Your task to perform on an android device: Search for pizza restaurants on Maps Image 0: 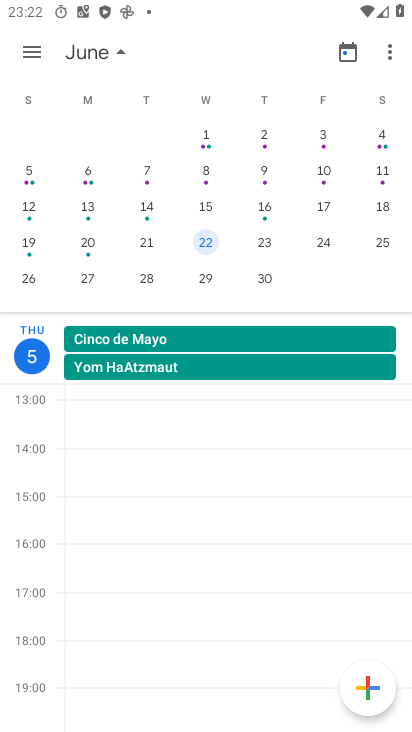
Step 0: press home button
Your task to perform on an android device: Search for pizza restaurants on Maps Image 1: 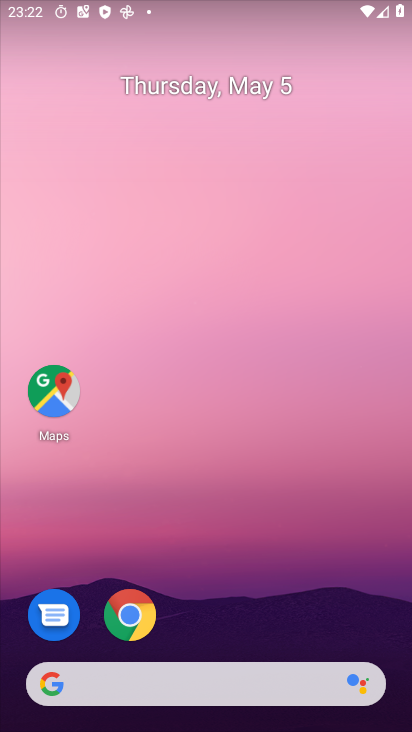
Step 1: click (49, 393)
Your task to perform on an android device: Search for pizza restaurants on Maps Image 2: 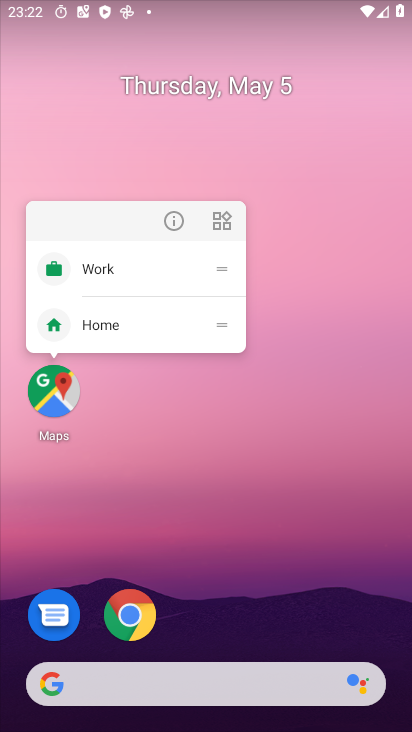
Step 2: click (60, 398)
Your task to perform on an android device: Search for pizza restaurants on Maps Image 3: 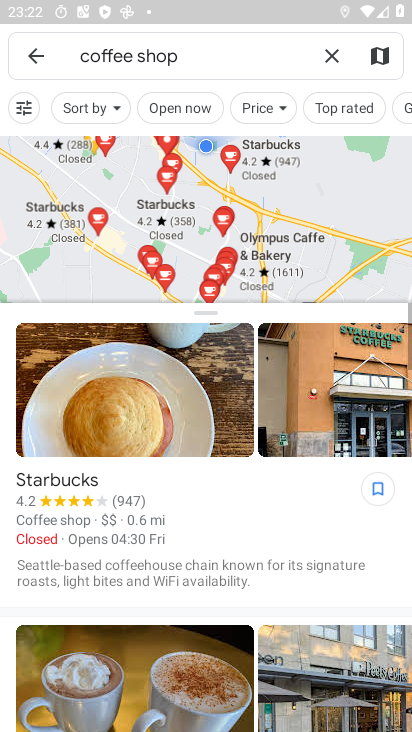
Step 3: click (260, 63)
Your task to perform on an android device: Search for pizza restaurants on Maps Image 4: 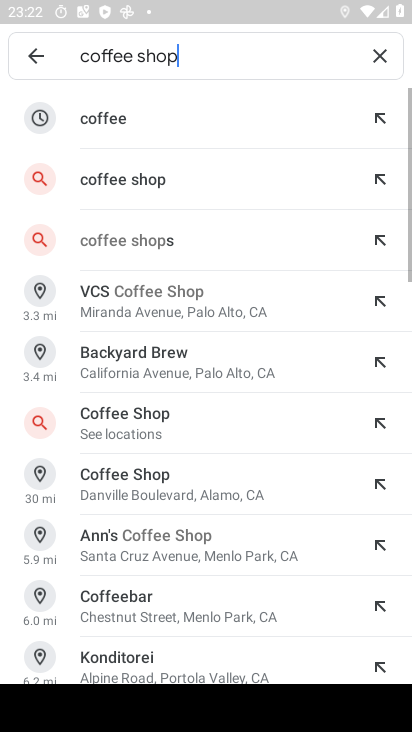
Step 4: click (370, 52)
Your task to perform on an android device: Search for pizza restaurants on Maps Image 5: 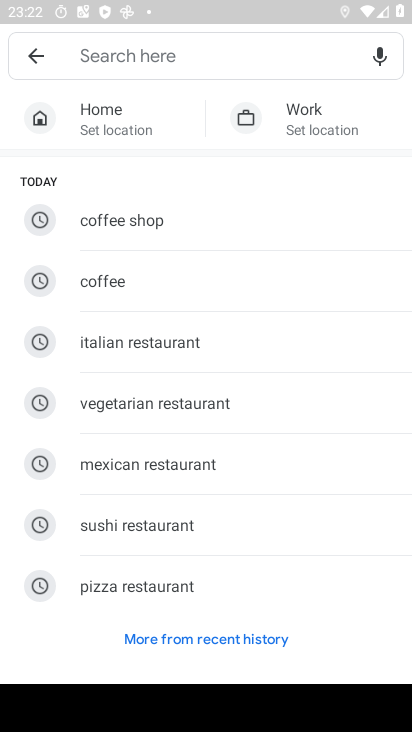
Step 5: click (153, 593)
Your task to perform on an android device: Search for pizza restaurants on Maps Image 6: 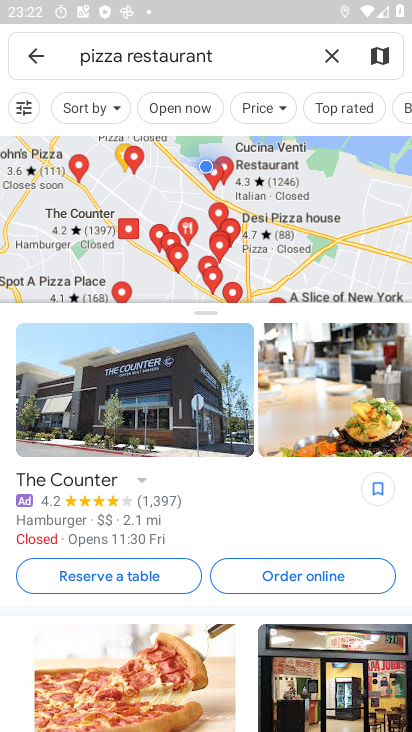
Step 6: task complete